Your task to perform on an android device: set an alarm Image 0: 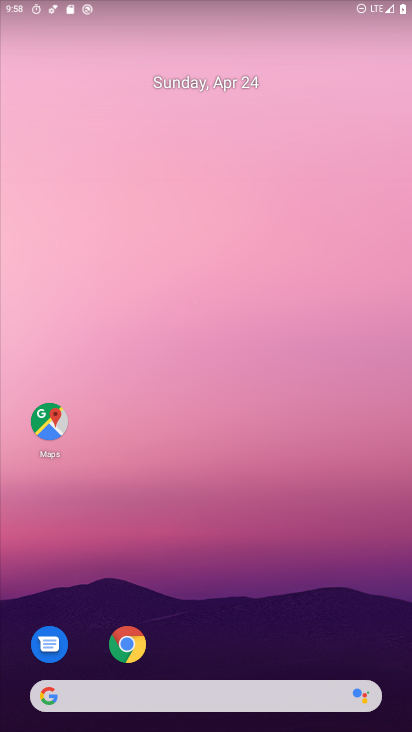
Step 0: drag from (380, 564) to (201, 1)
Your task to perform on an android device: set an alarm Image 1: 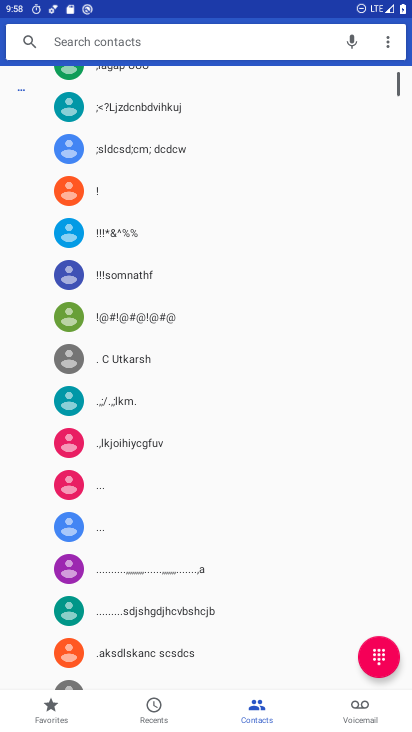
Step 1: press home button
Your task to perform on an android device: set an alarm Image 2: 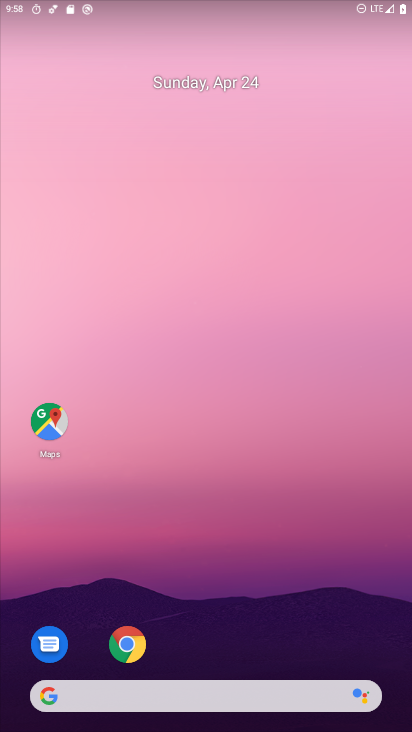
Step 2: drag from (225, 676) to (196, 101)
Your task to perform on an android device: set an alarm Image 3: 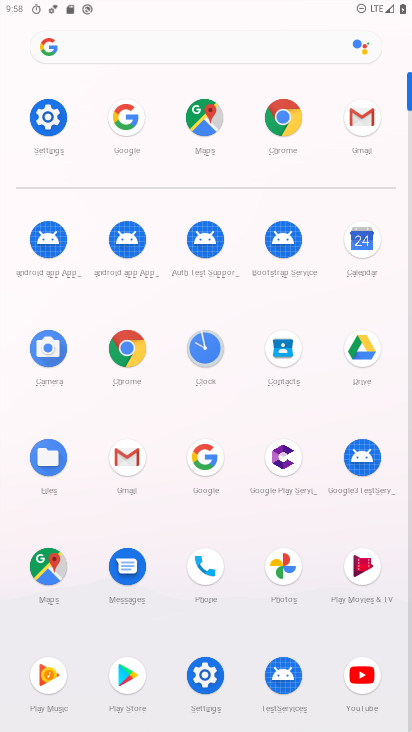
Step 3: click (210, 343)
Your task to perform on an android device: set an alarm Image 4: 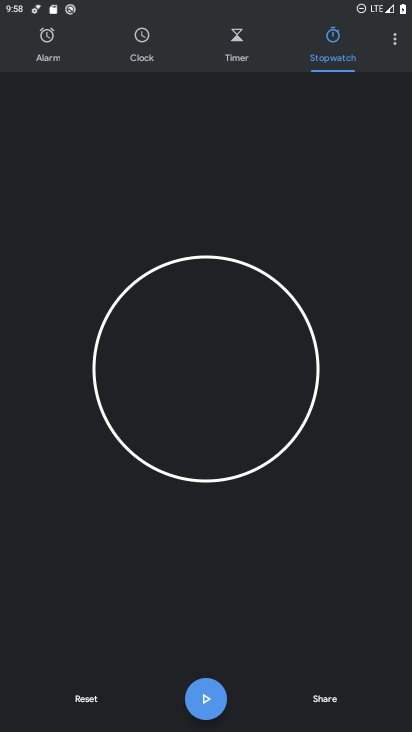
Step 4: click (40, 64)
Your task to perform on an android device: set an alarm Image 5: 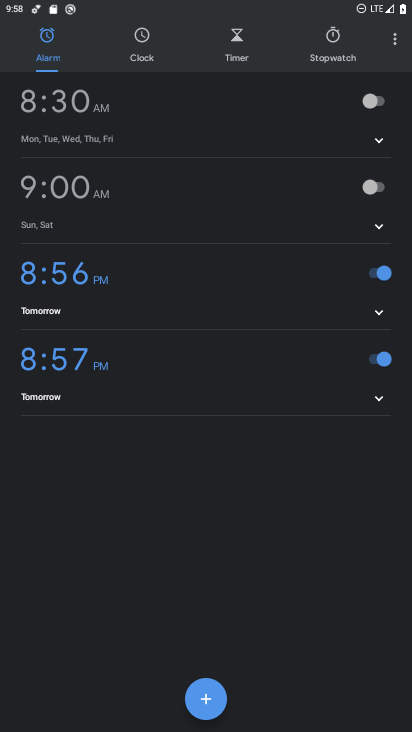
Step 5: click (199, 706)
Your task to perform on an android device: set an alarm Image 6: 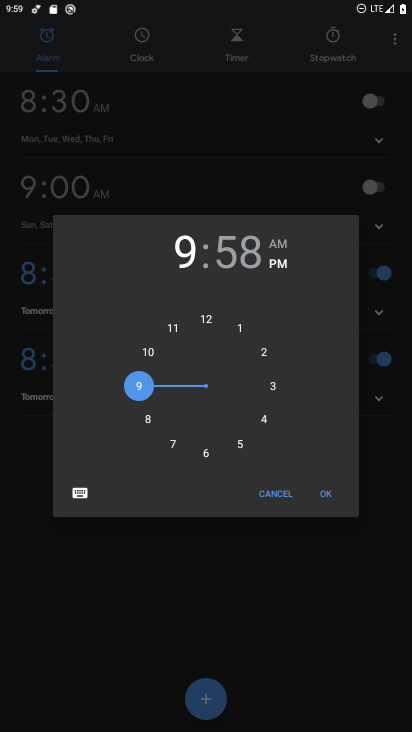
Step 6: click (292, 508)
Your task to perform on an android device: set an alarm Image 7: 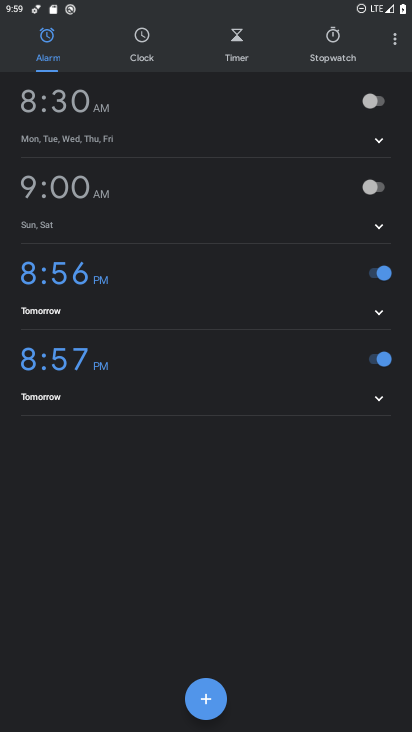
Step 7: click (214, 694)
Your task to perform on an android device: set an alarm Image 8: 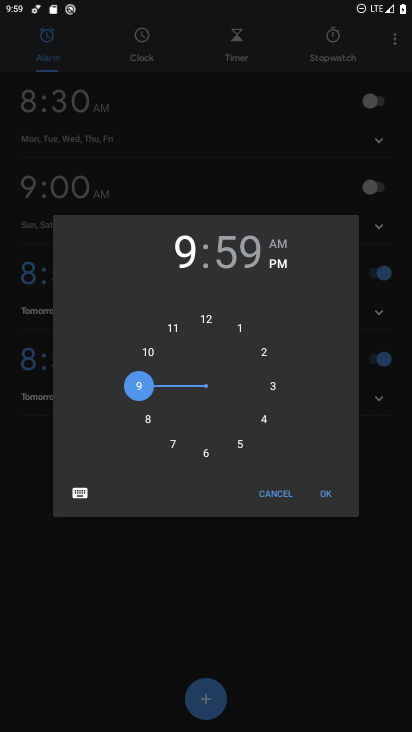
Step 8: click (327, 496)
Your task to perform on an android device: set an alarm Image 9: 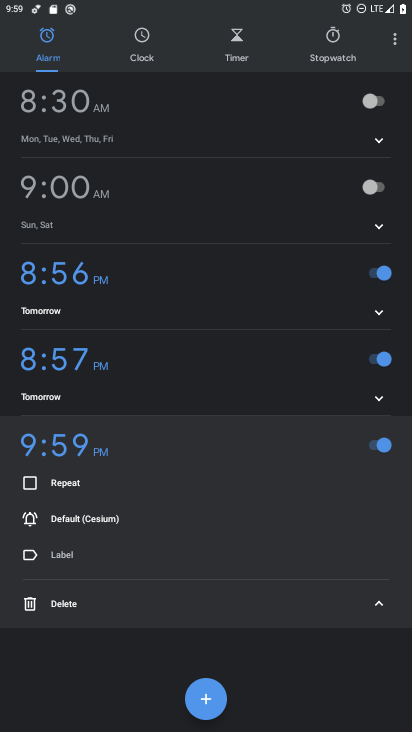
Step 9: task complete